Your task to perform on an android device: Open the calendar app, open the side menu, and click the "Day" option Image 0: 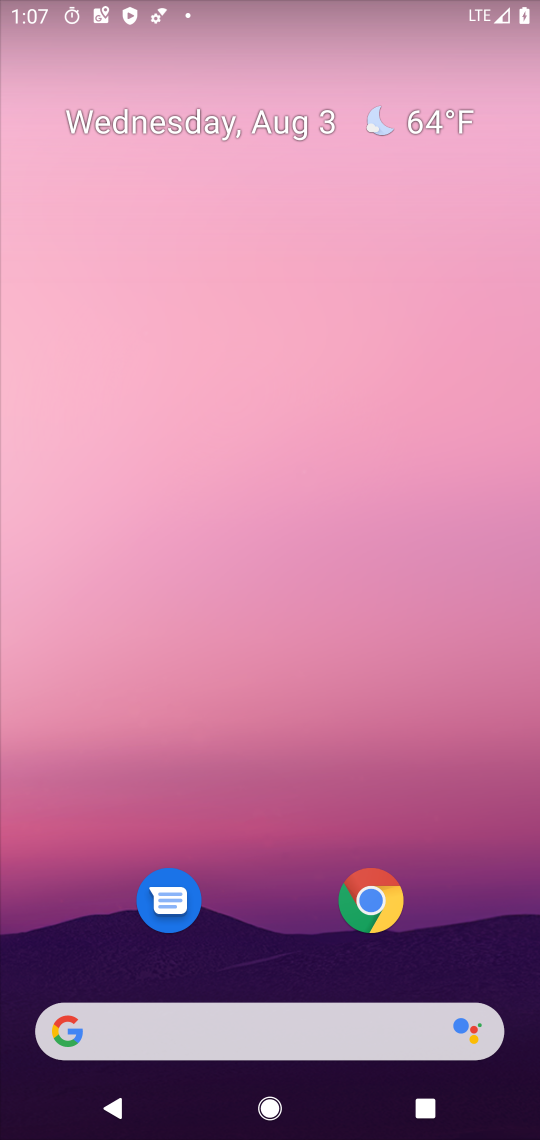
Step 0: drag from (278, 785) to (290, 208)
Your task to perform on an android device: Open the calendar app, open the side menu, and click the "Day" option Image 1: 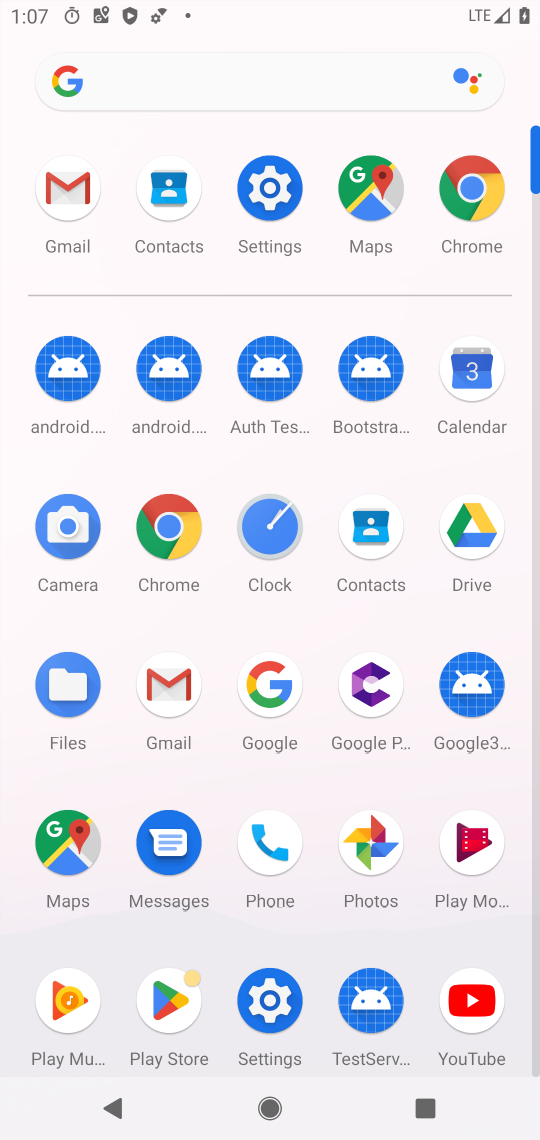
Step 1: click (467, 350)
Your task to perform on an android device: Open the calendar app, open the side menu, and click the "Day" option Image 2: 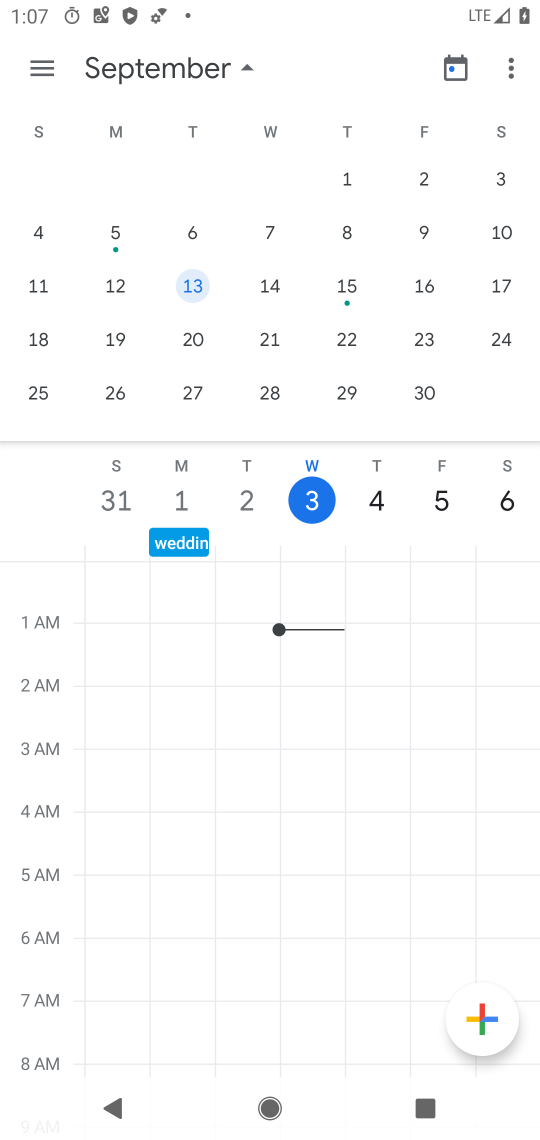
Step 2: click (50, 77)
Your task to perform on an android device: Open the calendar app, open the side menu, and click the "Day" option Image 3: 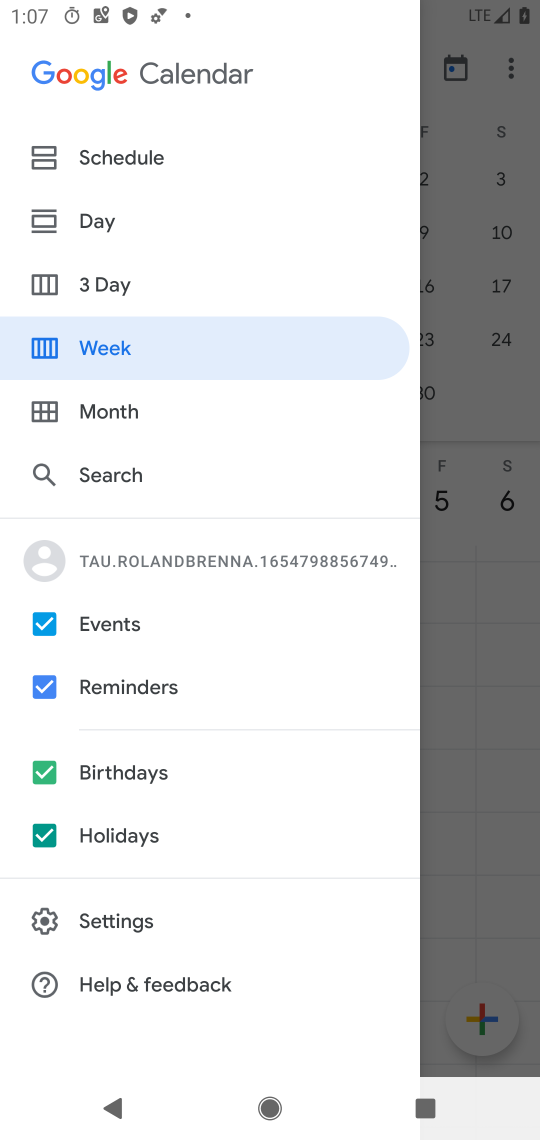
Step 3: click (119, 215)
Your task to perform on an android device: Open the calendar app, open the side menu, and click the "Day" option Image 4: 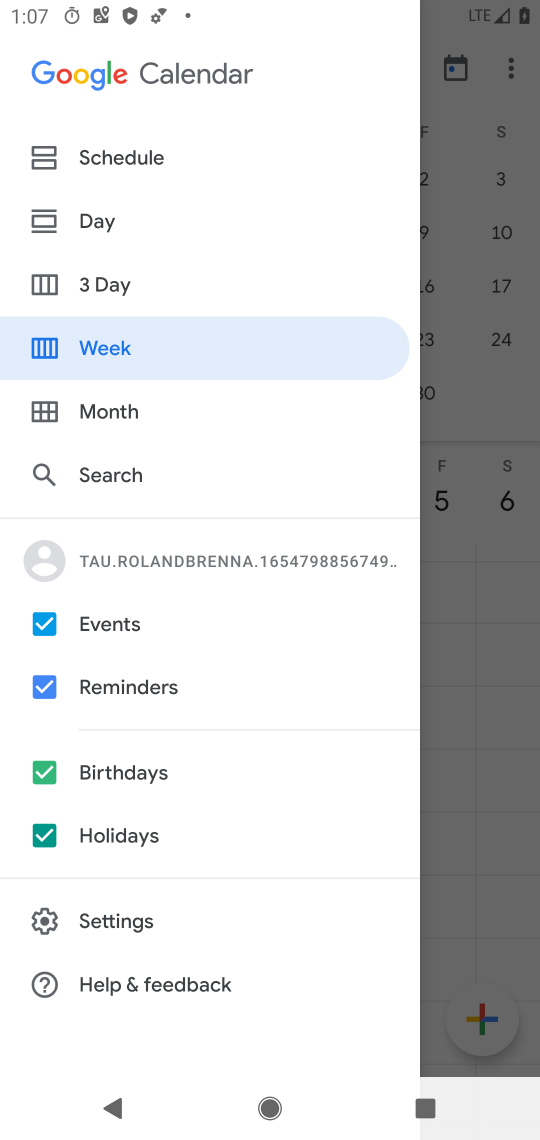
Step 4: click (86, 216)
Your task to perform on an android device: Open the calendar app, open the side menu, and click the "Day" option Image 5: 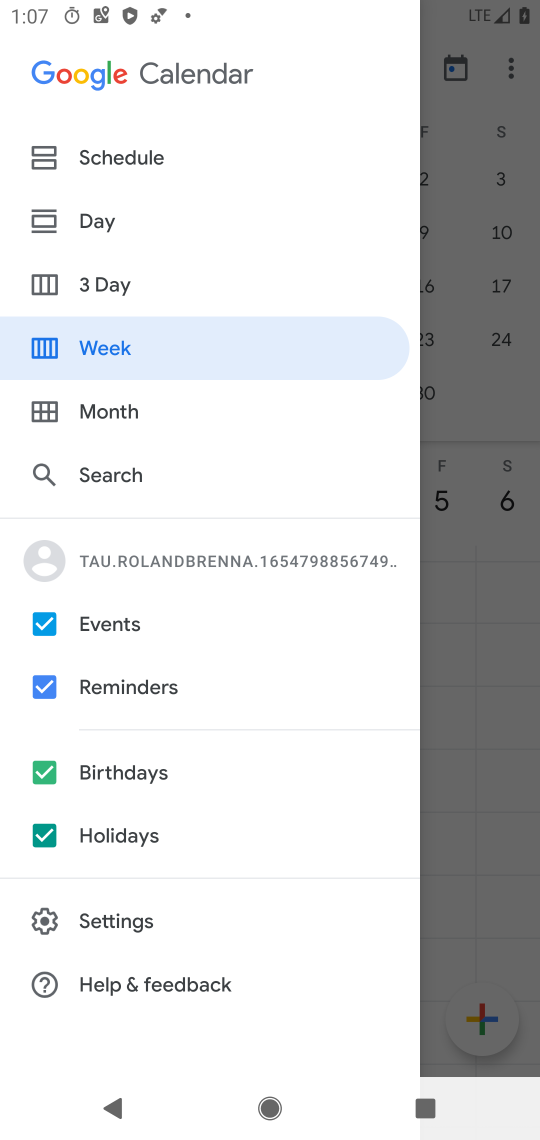
Step 5: click (95, 220)
Your task to perform on an android device: Open the calendar app, open the side menu, and click the "Day" option Image 6: 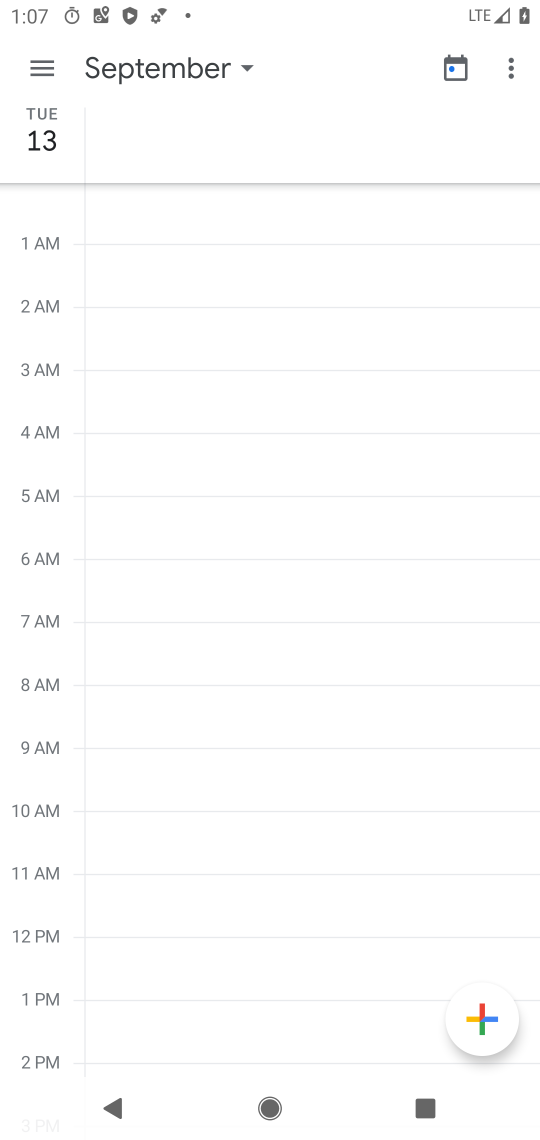
Step 6: task complete